Your task to perform on an android device: change the clock display to analog Image 0: 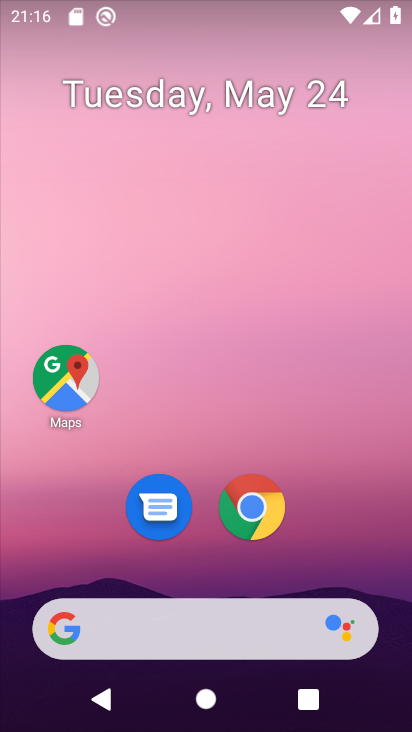
Step 0: drag from (209, 546) to (259, 107)
Your task to perform on an android device: change the clock display to analog Image 1: 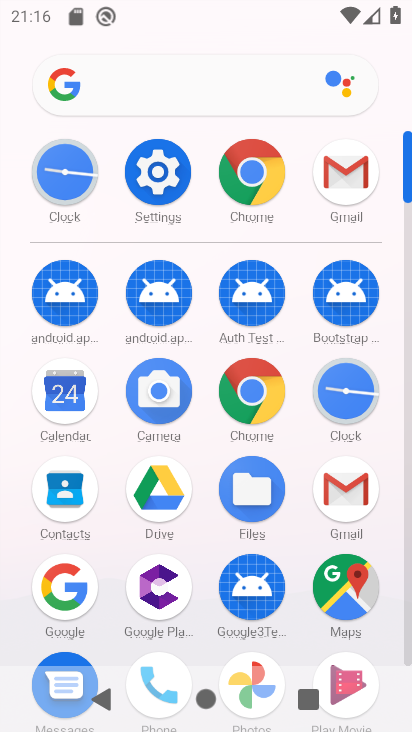
Step 1: click (347, 372)
Your task to perform on an android device: change the clock display to analog Image 2: 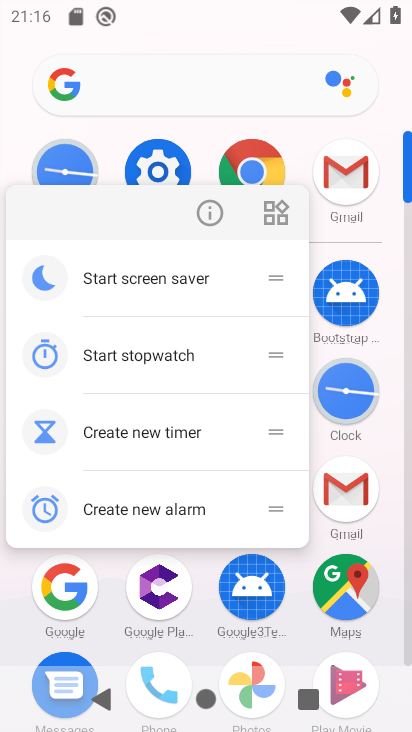
Step 2: click (219, 214)
Your task to perform on an android device: change the clock display to analog Image 3: 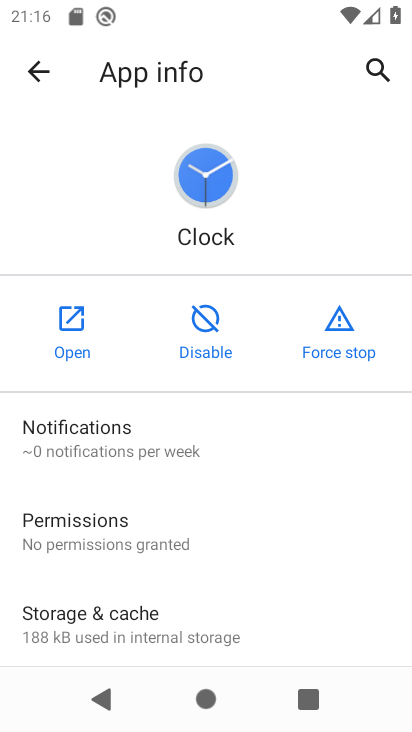
Step 3: click (87, 306)
Your task to perform on an android device: change the clock display to analog Image 4: 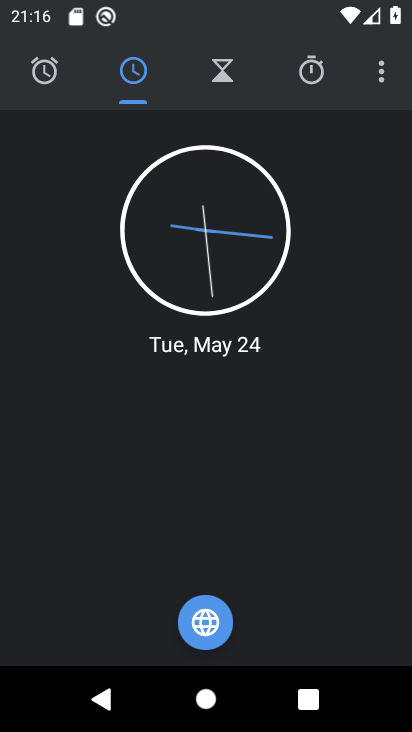
Step 4: click (382, 74)
Your task to perform on an android device: change the clock display to analog Image 5: 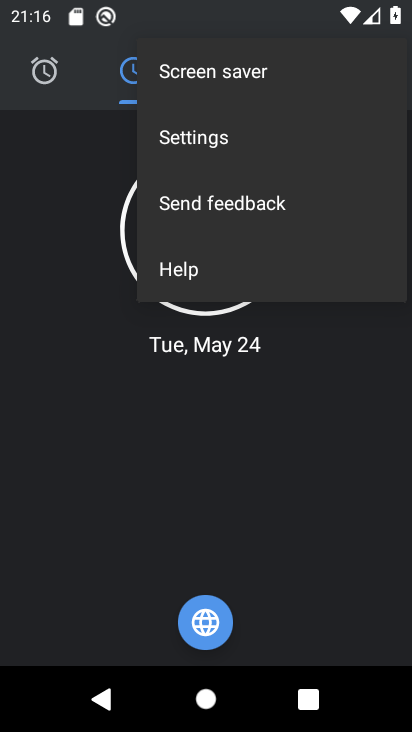
Step 5: click (219, 142)
Your task to perform on an android device: change the clock display to analog Image 6: 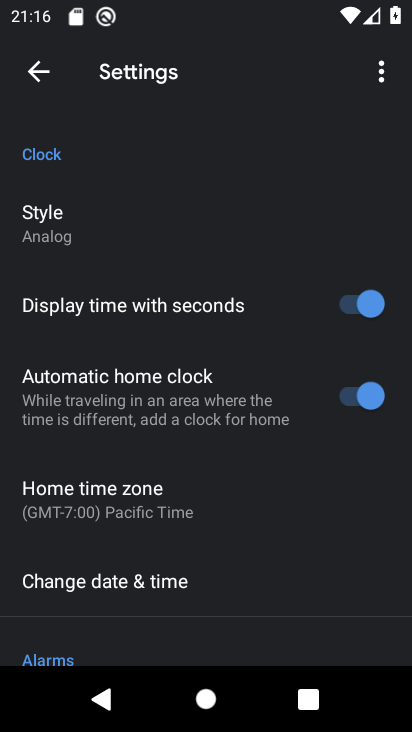
Step 6: task complete